Your task to perform on an android device: turn off translation in the chrome app Image 0: 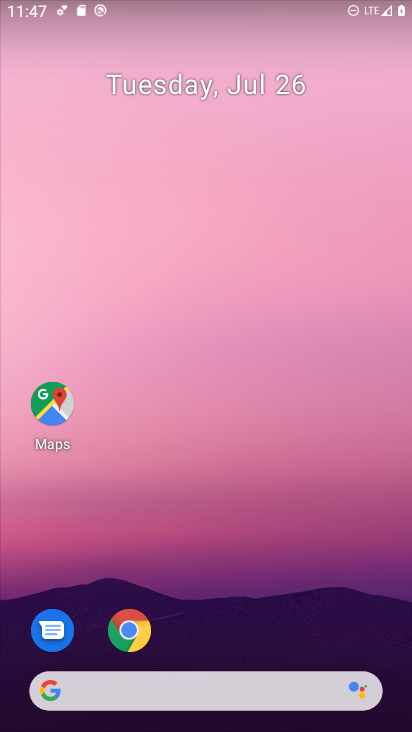
Step 0: click (126, 633)
Your task to perform on an android device: turn off translation in the chrome app Image 1: 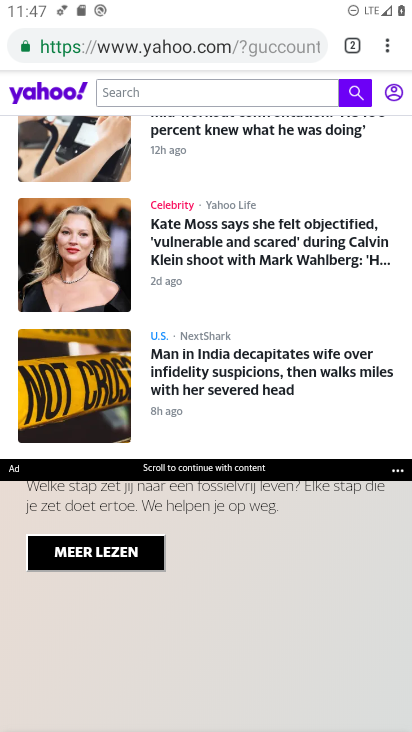
Step 1: click (389, 54)
Your task to perform on an android device: turn off translation in the chrome app Image 2: 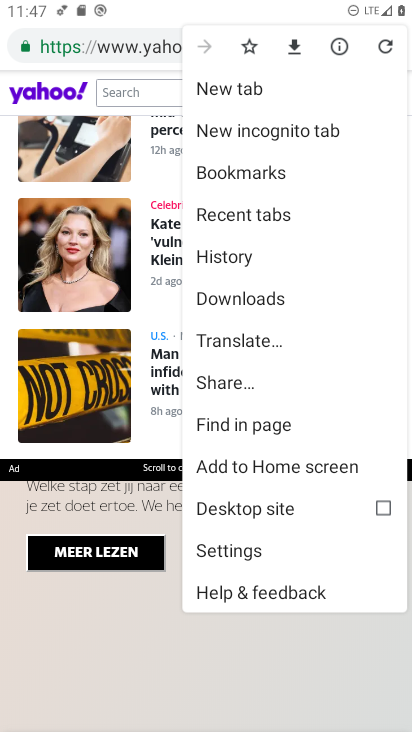
Step 2: click (241, 554)
Your task to perform on an android device: turn off translation in the chrome app Image 3: 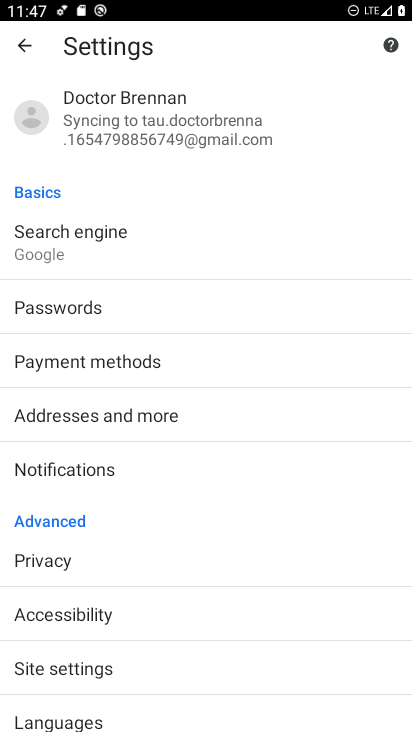
Step 3: drag from (193, 672) to (201, 279)
Your task to perform on an android device: turn off translation in the chrome app Image 4: 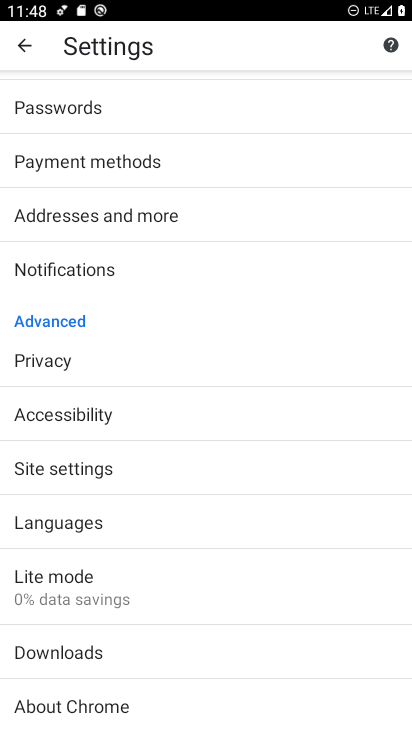
Step 4: click (74, 518)
Your task to perform on an android device: turn off translation in the chrome app Image 5: 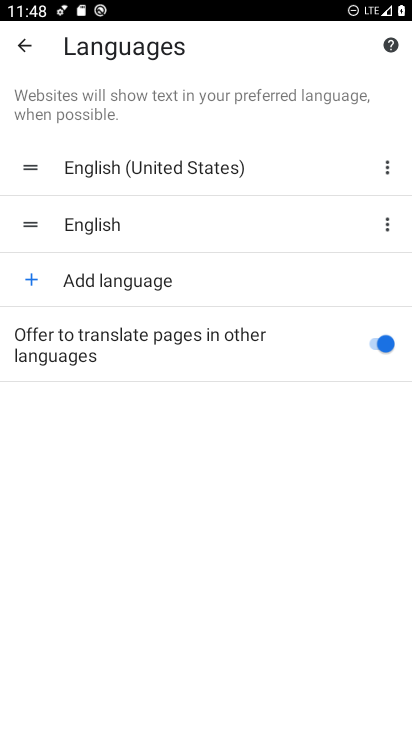
Step 5: click (368, 345)
Your task to perform on an android device: turn off translation in the chrome app Image 6: 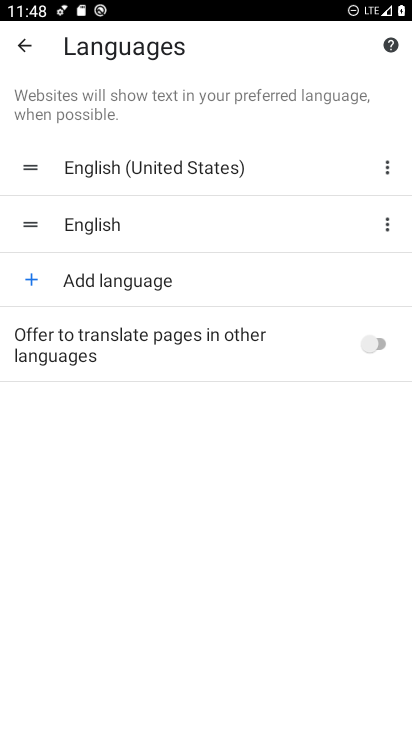
Step 6: task complete